Your task to perform on an android device: find photos in the google photos app Image 0: 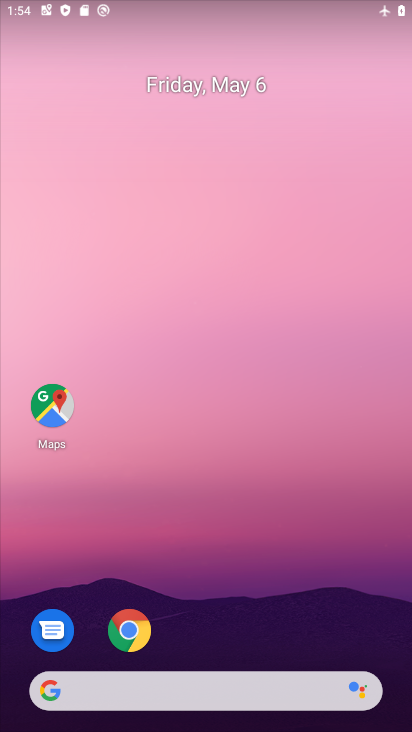
Step 0: drag from (211, 683) to (228, 360)
Your task to perform on an android device: find photos in the google photos app Image 1: 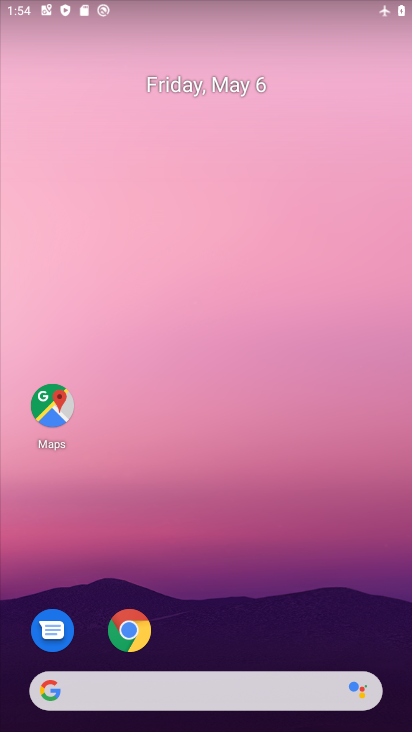
Step 1: drag from (186, 678) to (248, 286)
Your task to perform on an android device: find photos in the google photos app Image 2: 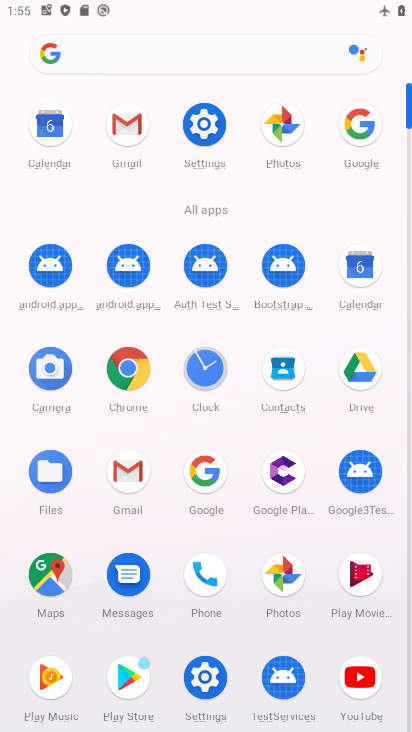
Step 2: click (273, 566)
Your task to perform on an android device: find photos in the google photos app Image 3: 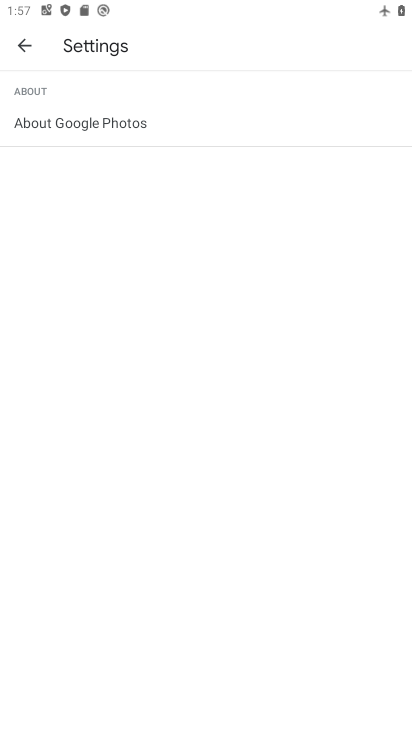
Step 3: click (22, 47)
Your task to perform on an android device: find photos in the google photos app Image 4: 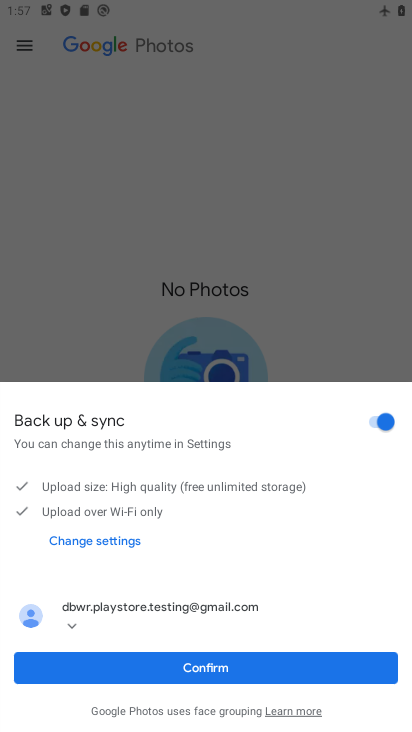
Step 4: click (55, 127)
Your task to perform on an android device: find photos in the google photos app Image 5: 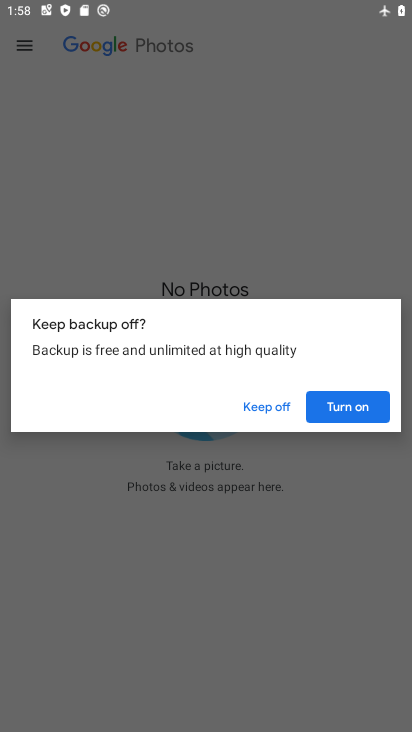
Step 5: click (341, 403)
Your task to perform on an android device: find photos in the google photos app Image 6: 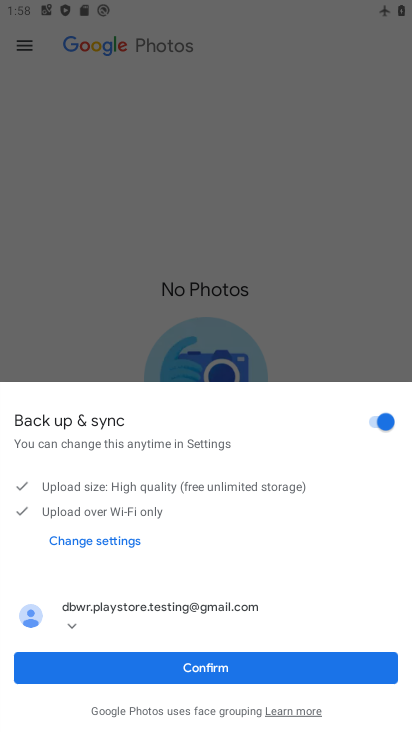
Step 6: click (183, 669)
Your task to perform on an android device: find photos in the google photos app Image 7: 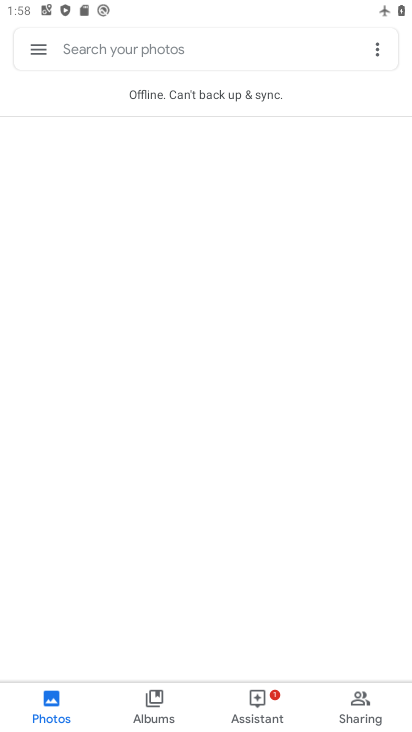
Step 7: task complete